Your task to perform on an android device: Turn on the flashlight Image 0: 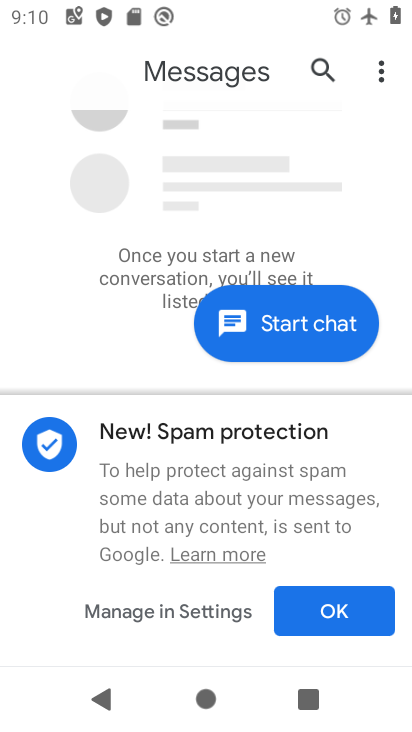
Step 0: press home button
Your task to perform on an android device: Turn on the flashlight Image 1: 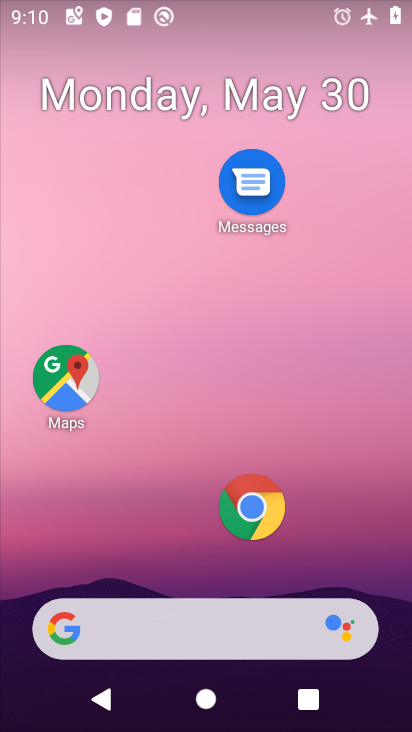
Step 1: task complete